Your task to perform on an android device: star an email in the gmail app Image 0: 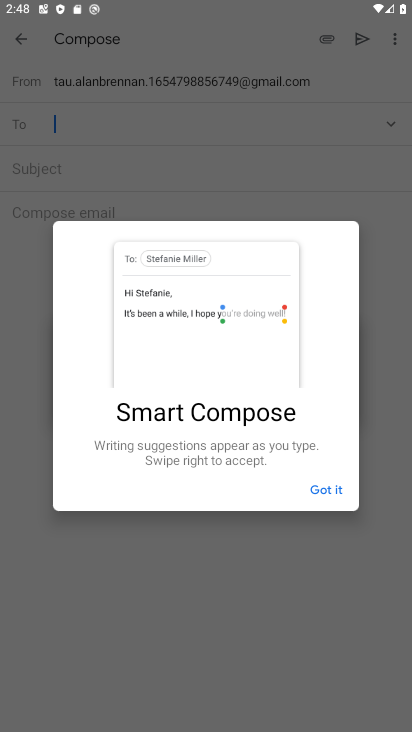
Step 0: press home button
Your task to perform on an android device: star an email in the gmail app Image 1: 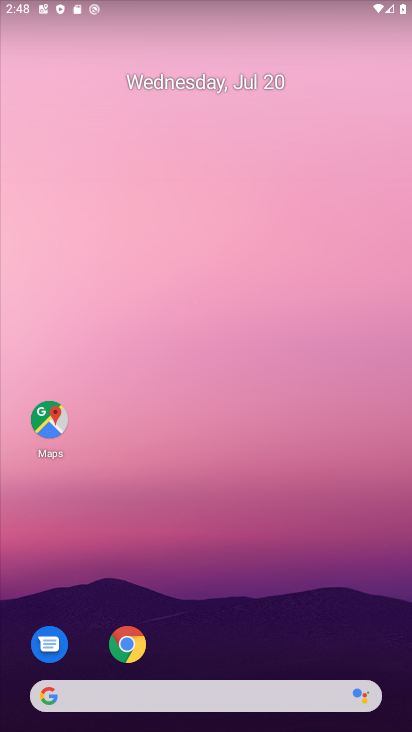
Step 1: drag from (246, 656) to (234, 32)
Your task to perform on an android device: star an email in the gmail app Image 2: 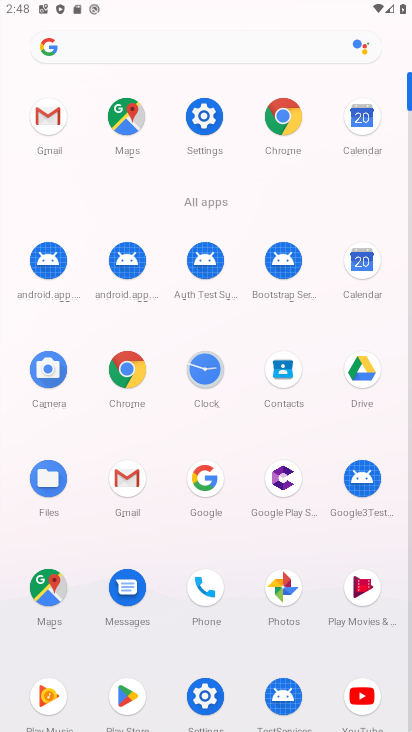
Step 2: click (60, 136)
Your task to perform on an android device: star an email in the gmail app Image 3: 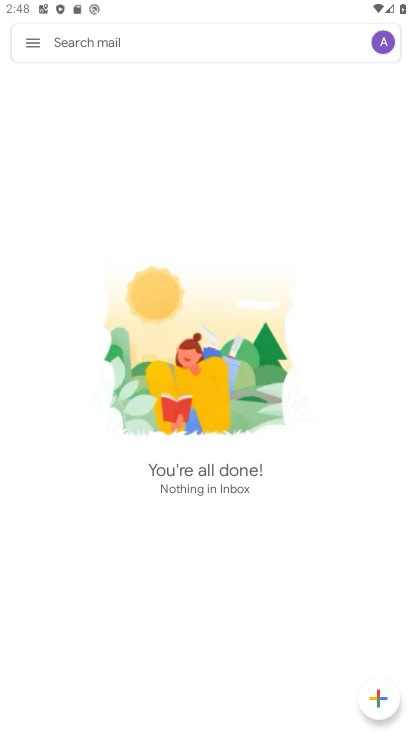
Step 3: click (23, 44)
Your task to perform on an android device: star an email in the gmail app Image 4: 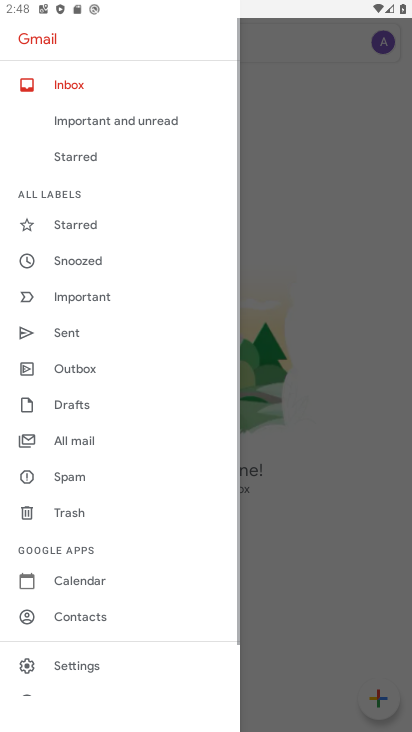
Step 4: click (53, 158)
Your task to perform on an android device: star an email in the gmail app Image 5: 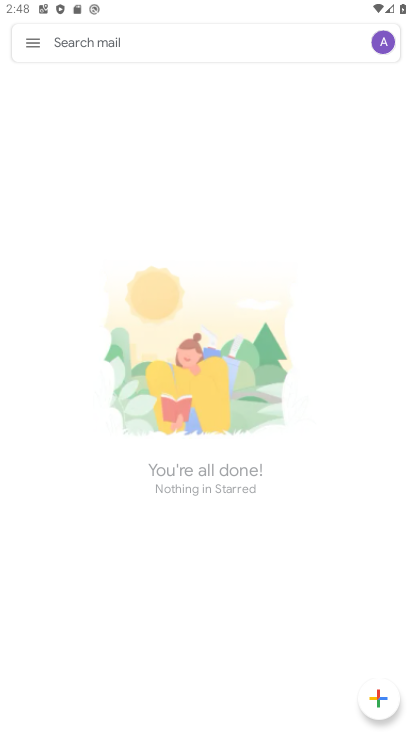
Step 5: task complete